Your task to perform on an android device: turn smart compose on in the gmail app Image 0: 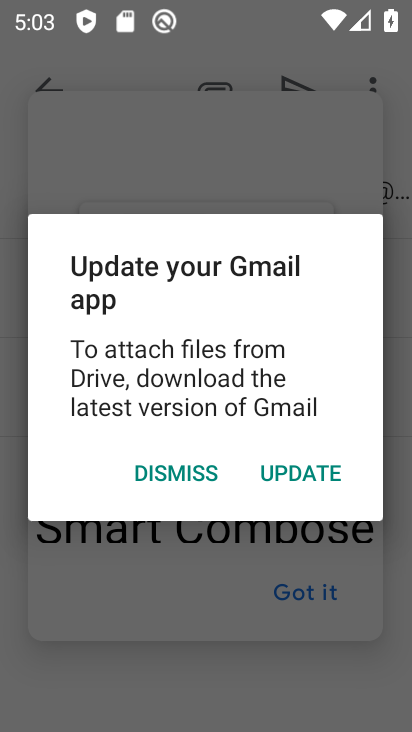
Step 0: press home button
Your task to perform on an android device: turn smart compose on in the gmail app Image 1: 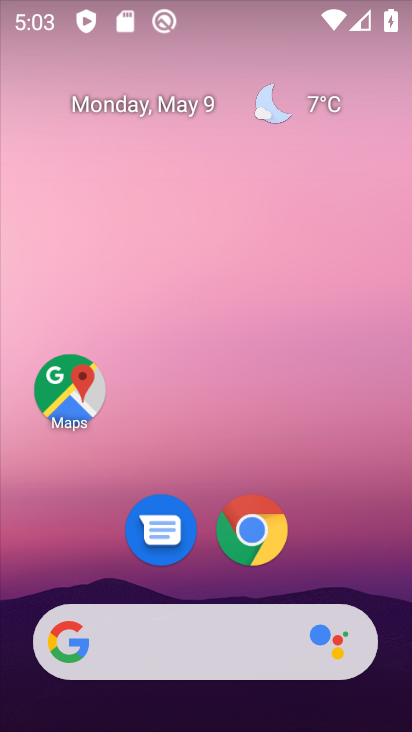
Step 1: drag from (209, 588) to (204, 84)
Your task to perform on an android device: turn smart compose on in the gmail app Image 2: 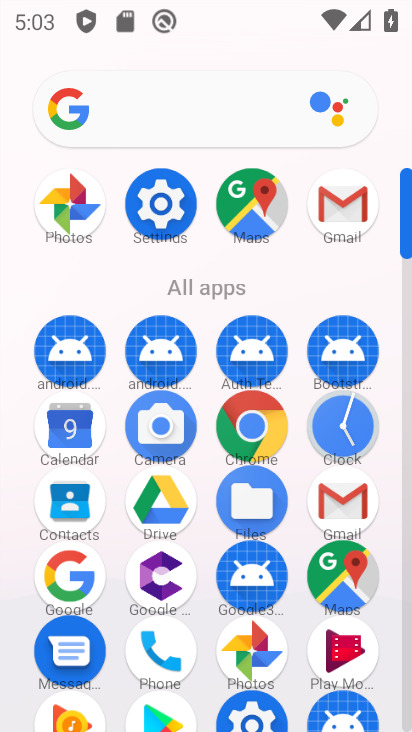
Step 2: click (345, 190)
Your task to perform on an android device: turn smart compose on in the gmail app Image 3: 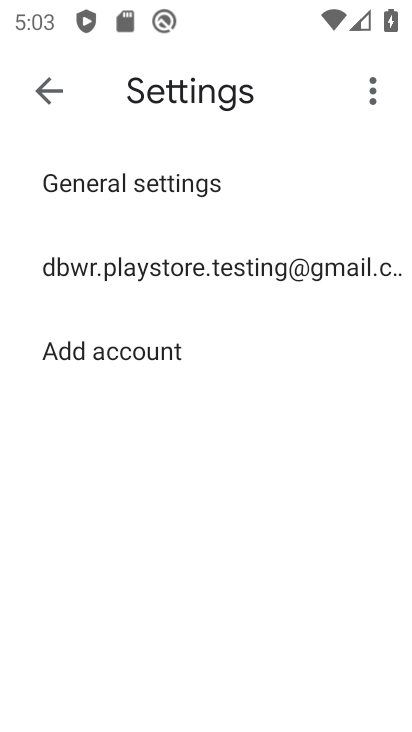
Step 3: click (252, 273)
Your task to perform on an android device: turn smart compose on in the gmail app Image 4: 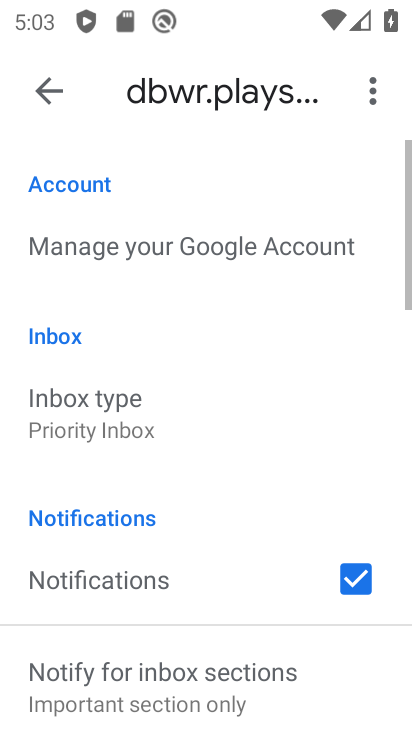
Step 4: task complete